Your task to perform on an android device: Go to privacy settings Image 0: 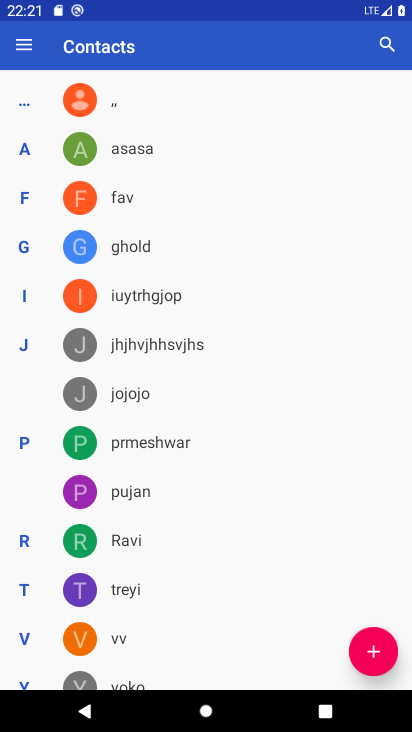
Step 0: press home button
Your task to perform on an android device: Go to privacy settings Image 1: 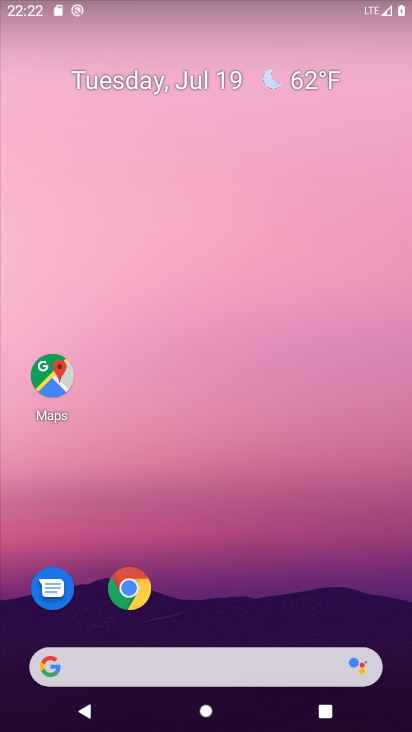
Step 1: drag from (196, 540) to (215, 155)
Your task to perform on an android device: Go to privacy settings Image 2: 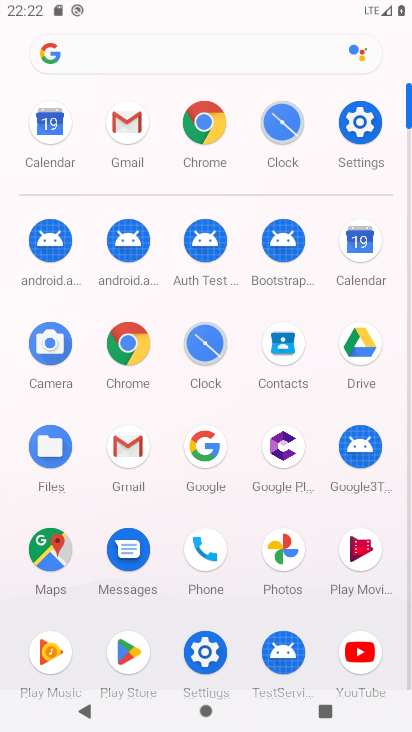
Step 2: click (215, 155)
Your task to perform on an android device: Go to privacy settings Image 3: 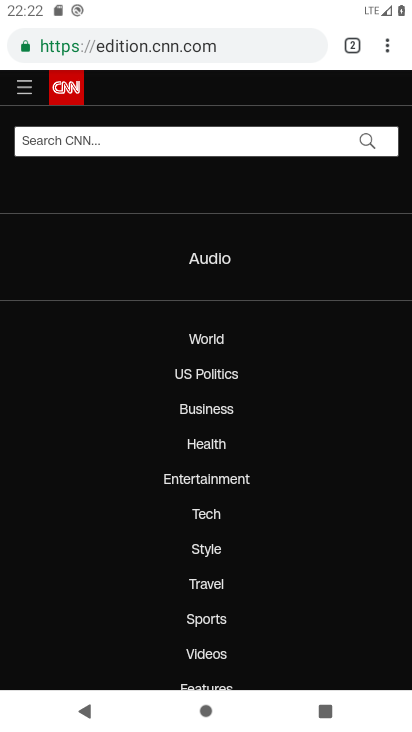
Step 3: press home button
Your task to perform on an android device: Go to privacy settings Image 4: 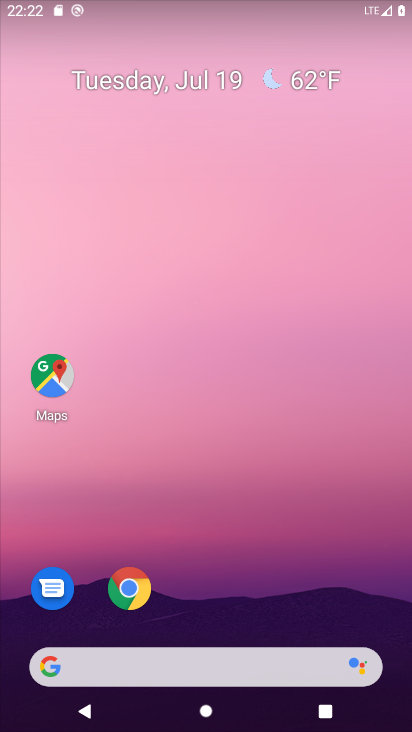
Step 4: drag from (191, 612) to (192, 117)
Your task to perform on an android device: Go to privacy settings Image 5: 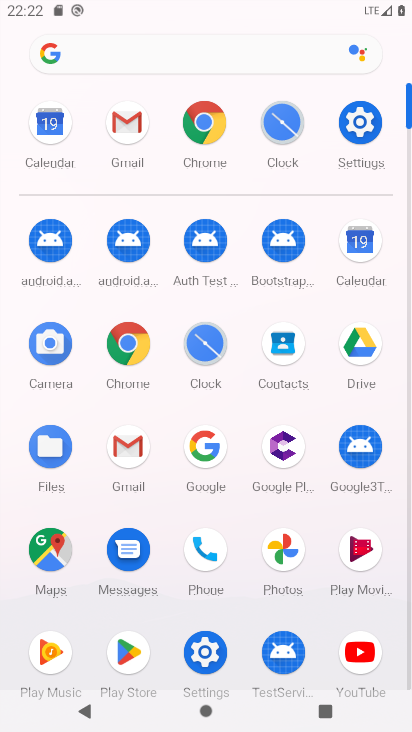
Step 5: click (364, 132)
Your task to perform on an android device: Go to privacy settings Image 6: 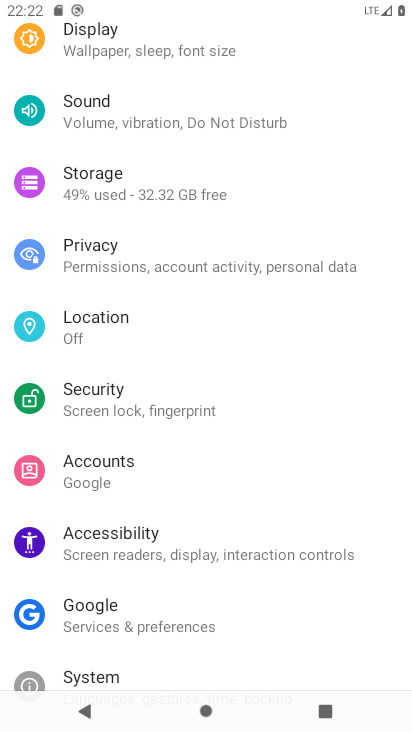
Step 6: click (124, 245)
Your task to perform on an android device: Go to privacy settings Image 7: 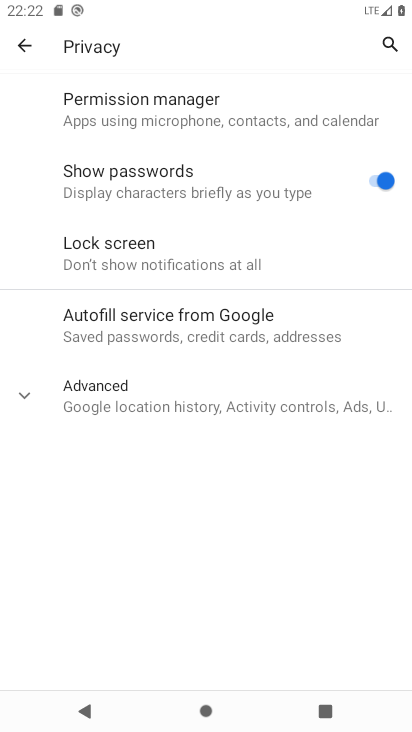
Step 7: task complete